Your task to perform on an android device: Go to wifi settings Image 0: 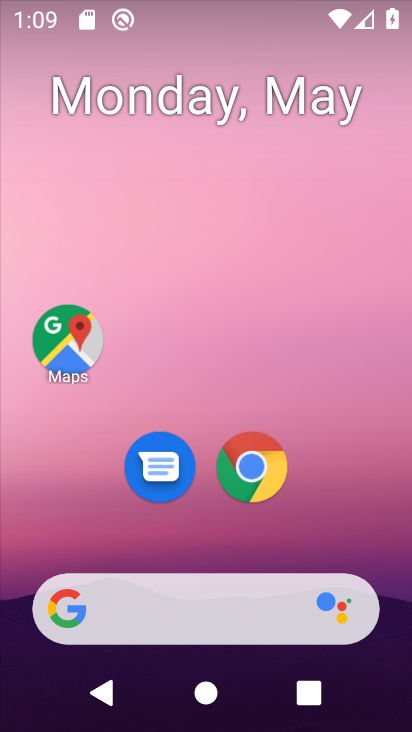
Step 0: drag from (212, 552) to (166, 12)
Your task to perform on an android device: Go to wifi settings Image 1: 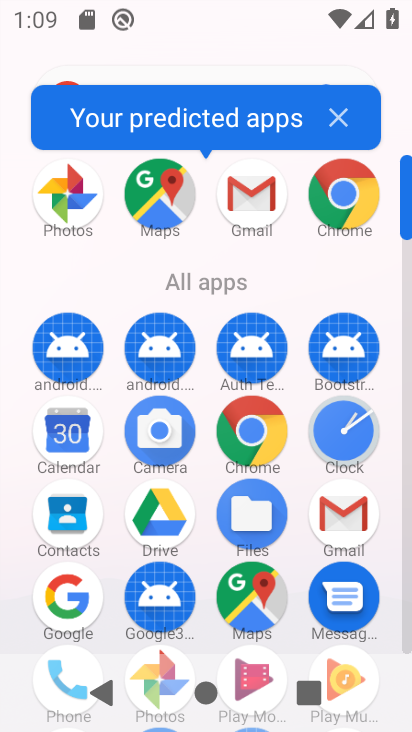
Step 1: drag from (209, 553) to (204, 153)
Your task to perform on an android device: Go to wifi settings Image 2: 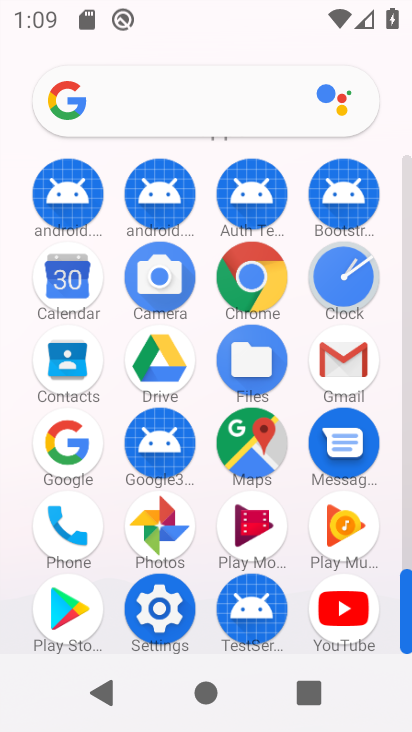
Step 2: click (179, 602)
Your task to perform on an android device: Go to wifi settings Image 3: 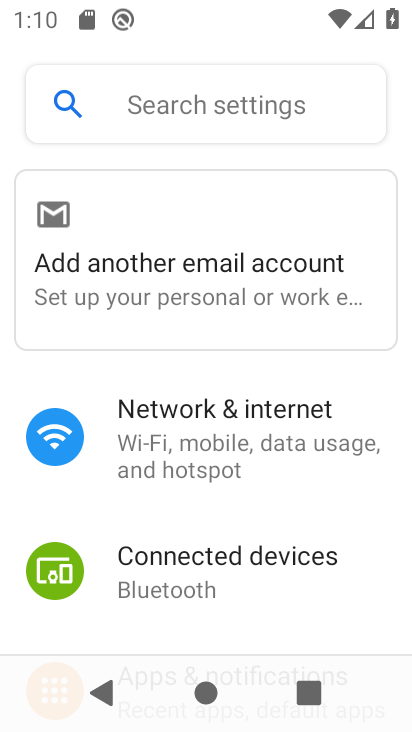
Step 3: click (190, 422)
Your task to perform on an android device: Go to wifi settings Image 4: 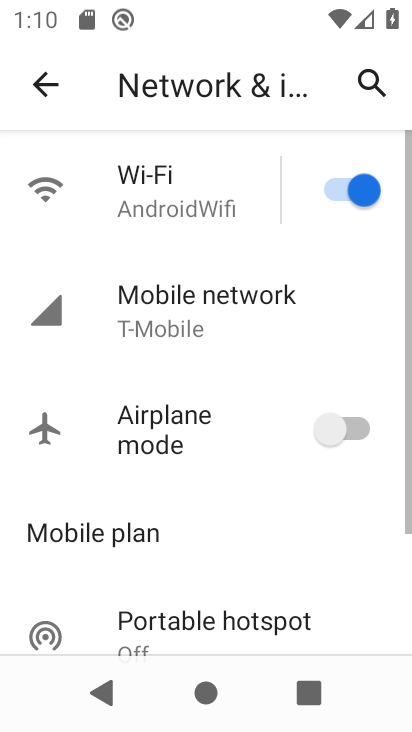
Step 4: click (171, 203)
Your task to perform on an android device: Go to wifi settings Image 5: 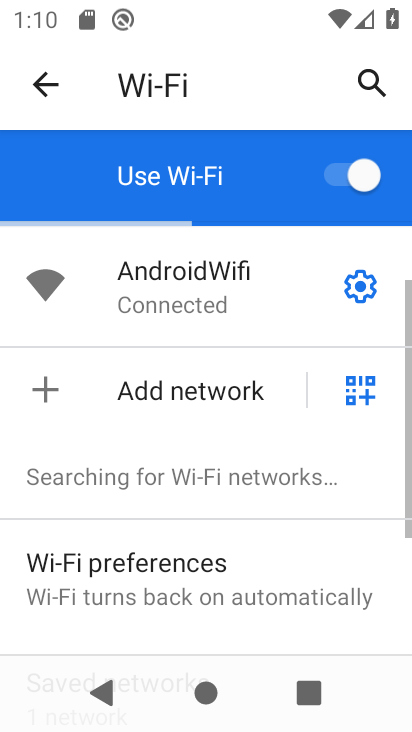
Step 5: task complete